Your task to perform on an android device: move a message to another label in the gmail app Image 0: 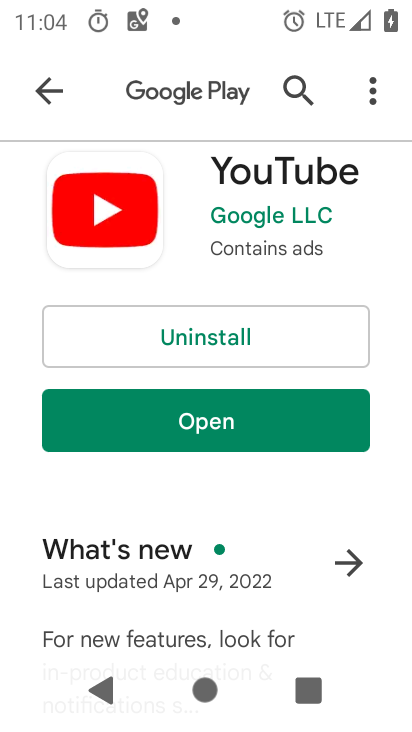
Step 0: press home button
Your task to perform on an android device: move a message to another label in the gmail app Image 1: 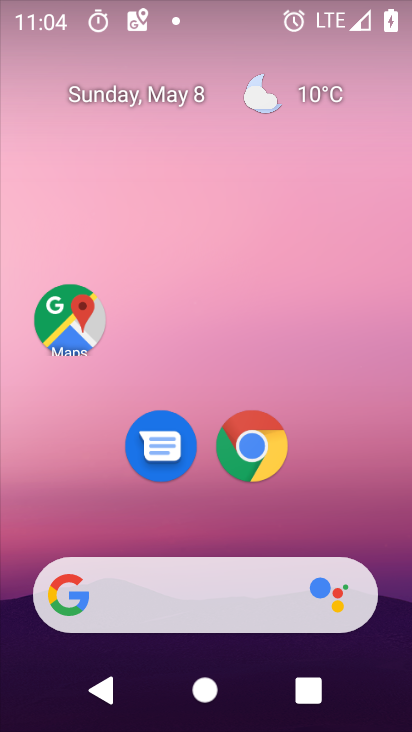
Step 1: drag from (358, 547) to (382, 2)
Your task to perform on an android device: move a message to another label in the gmail app Image 2: 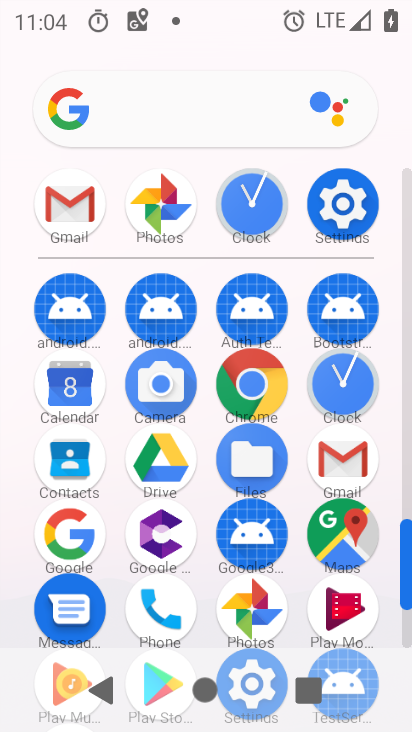
Step 2: click (51, 209)
Your task to perform on an android device: move a message to another label in the gmail app Image 3: 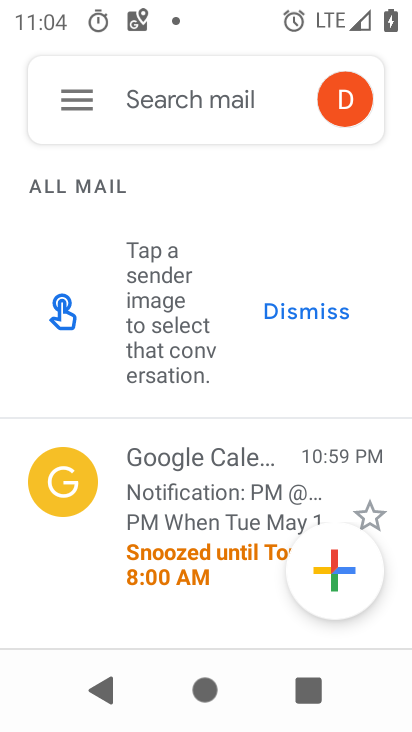
Step 3: click (192, 469)
Your task to perform on an android device: move a message to another label in the gmail app Image 4: 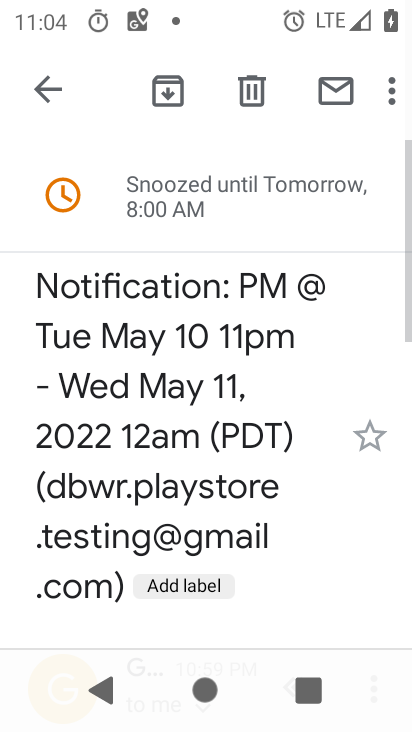
Step 4: click (391, 91)
Your task to perform on an android device: move a message to another label in the gmail app Image 5: 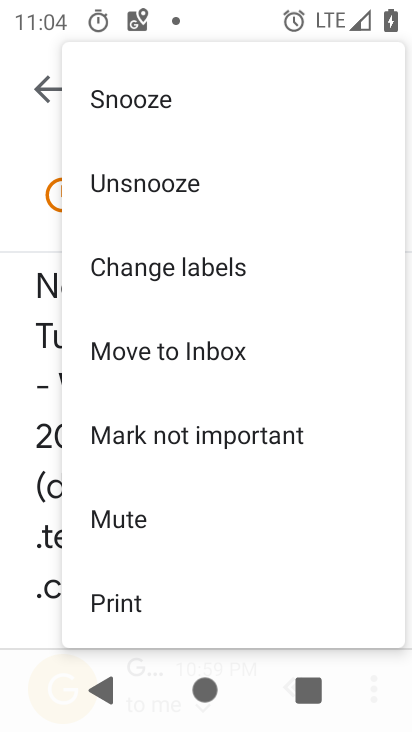
Step 5: click (153, 276)
Your task to perform on an android device: move a message to another label in the gmail app Image 6: 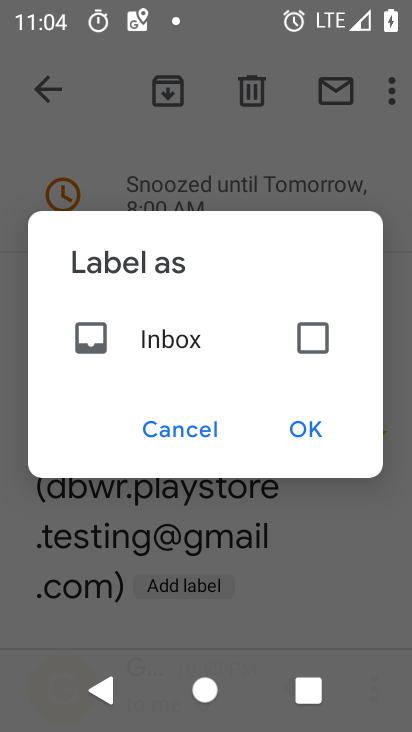
Step 6: click (324, 327)
Your task to perform on an android device: move a message to another label in the gmail app Image 7: 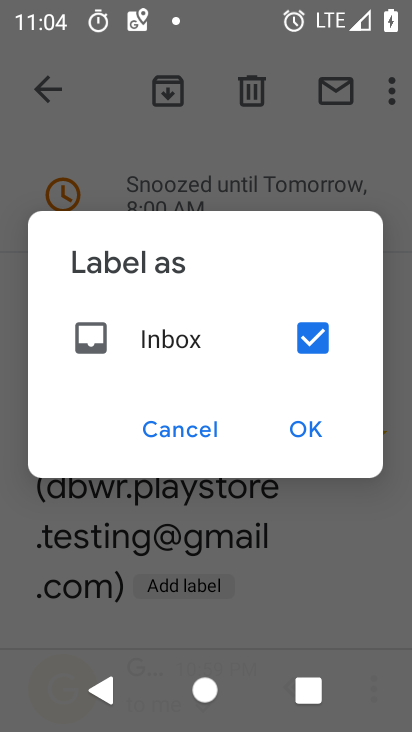
Step 7: click (302, 427)
Your task to perform on an android device: move a message to another label in the gmail app Image 8: 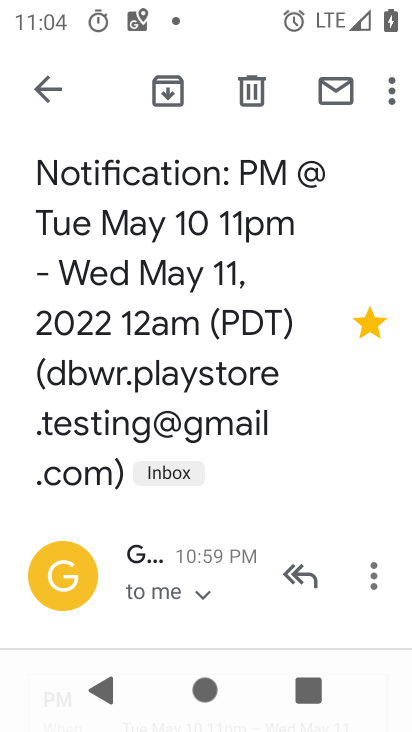
Step 8: task complete